Your task to perform on an android device: Open calendar and show me the fourth week of next month Image 0: 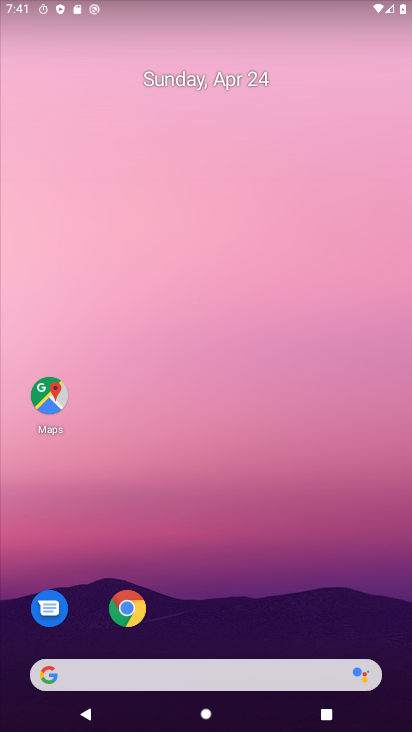
Step 0: drag from (243, 570) to (242, 96)
Your task to perform on an android device: Open calendar and show me the fourth week of next month Image 1: 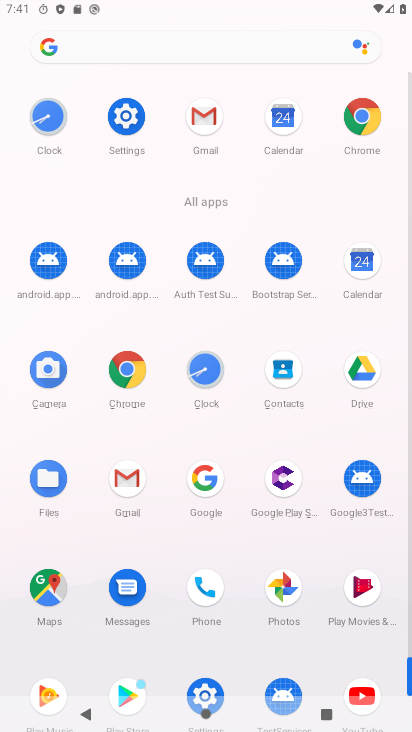
Step 1: click (284, 118)
Your task to perform on an android device: Open calendar and show me the fourth week of next month Image 2: 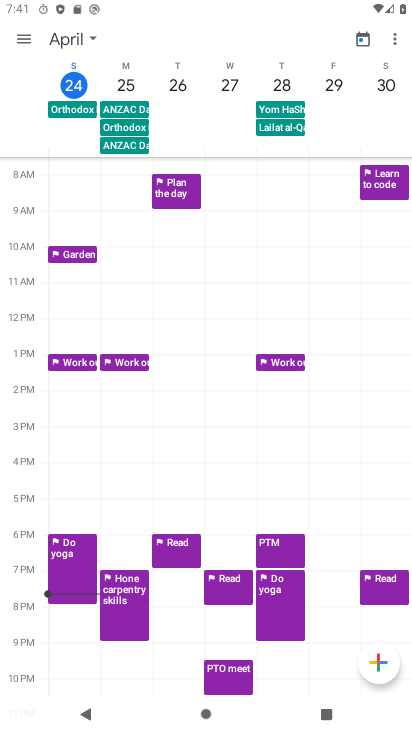
Step 2: task complete